Your task to perform on an android device: What's on my calendar today? Image 0: 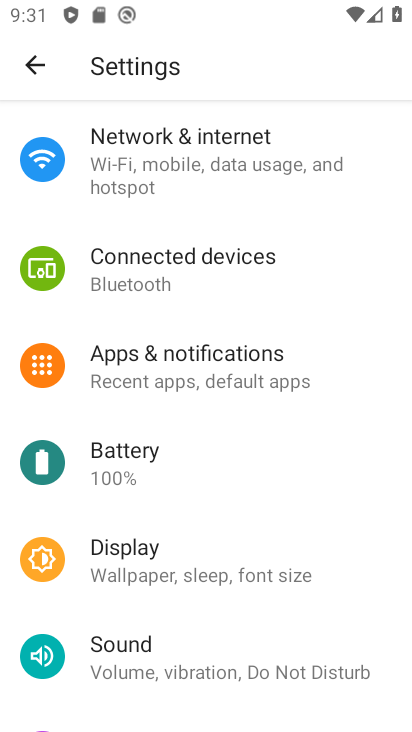
Step 0: press home button
Your task to perform on an android device: What's on my calendar today? Image 1: 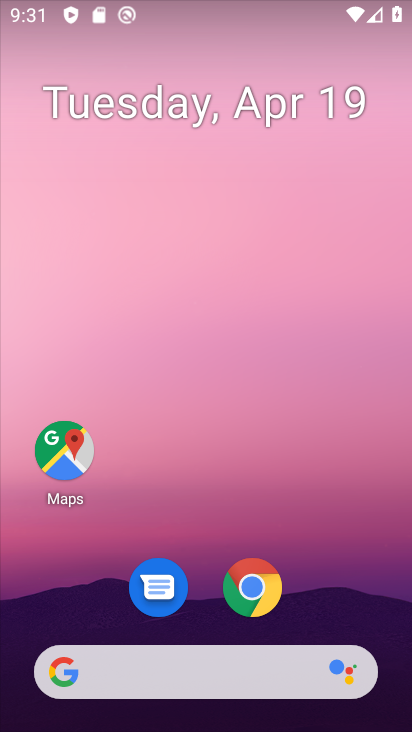
Step 1: drag from (357, 466) to (343, 83)
Your task to perform on an android device: What's on my calendar today? Image 2: 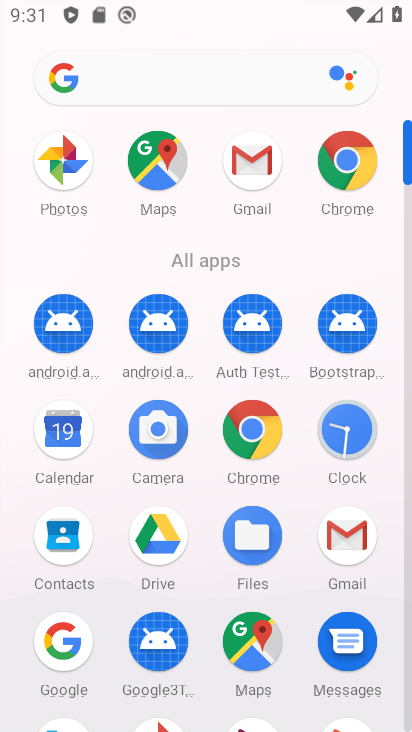
Step 2: click (46, 433)
Your task to perform on an android device: What's on my calendar today? Image 3: 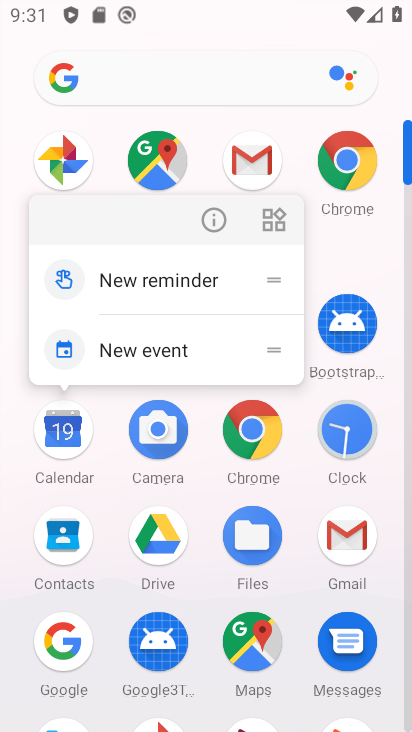
Step 3: click (67, 447)
Your task to perform on an android device: What's on my calendar today? Image 4: 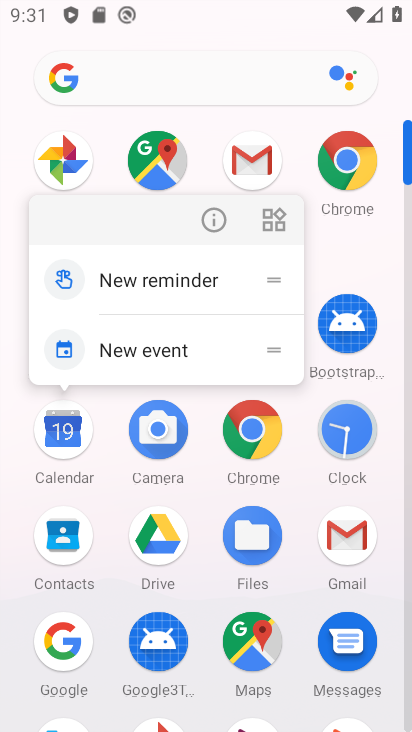
Step 4: click (71, 421)
Your task to perform on an android device: What's on my calendar today? Image 5: 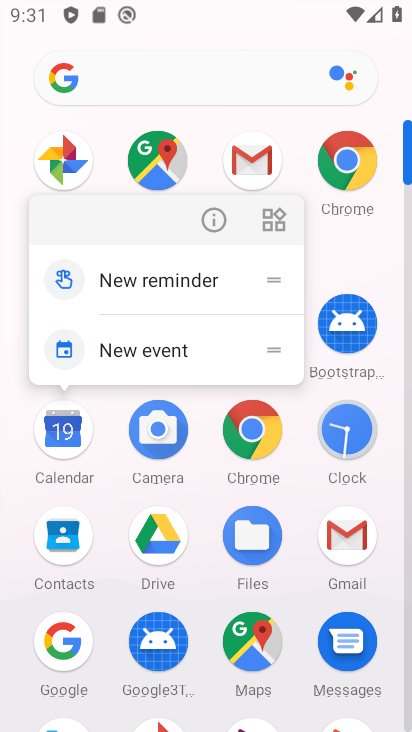
Step 5: click (71, 420)
Your task to perform on an android device: What's on my calendar today? Image 6: 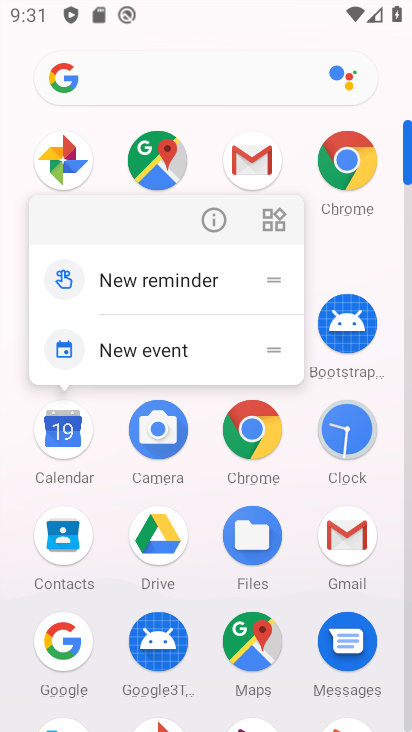
Step 6: click (71, 425)
Your task to perform on an android device: What's on my calendar today? Image 7: 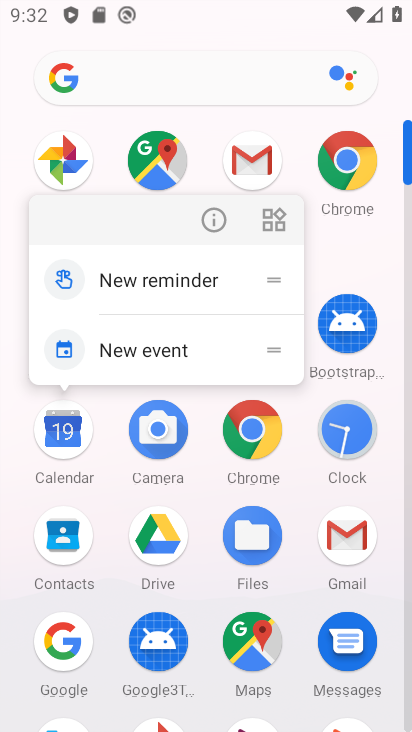
Step 7: click (71, 425)
Your task to perform on an android device: What's on my calendar today? Image 8: 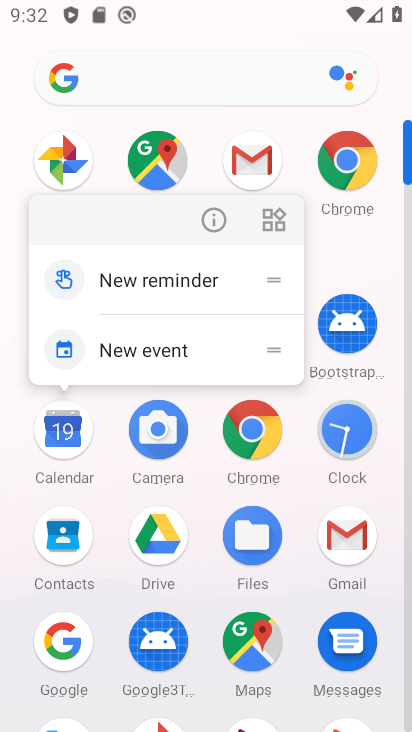
Step 8: click (59, 450)
Your task to perform on an android device: What's on my calendar today? Image 9: 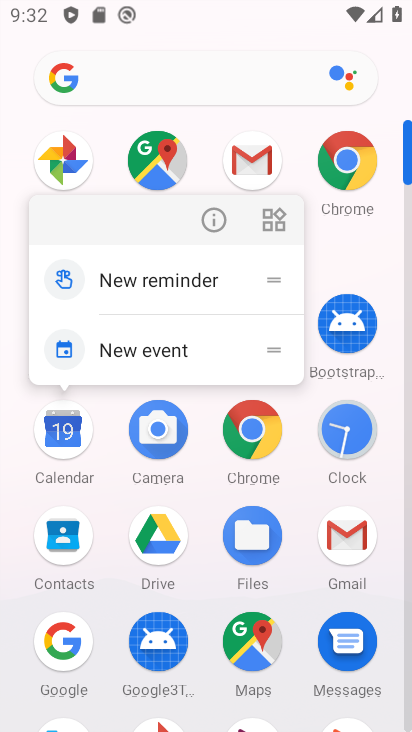
Step 9: click (69, 429)
Your task to perform on an android device: What's on my calendar today? Image 10: 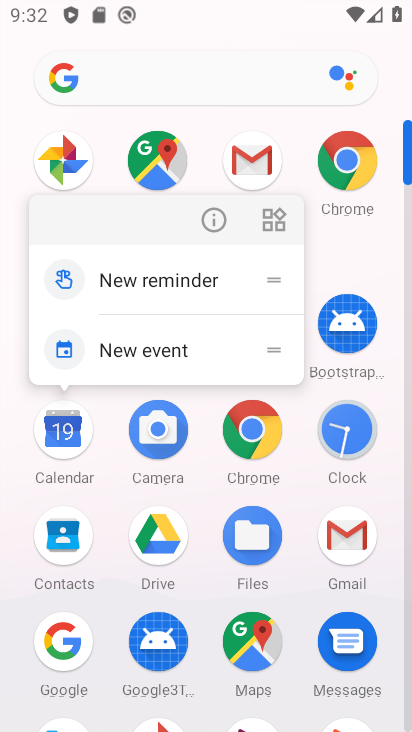
Step 10: click (69, 430)
Your task to perform on an android device: What's on my calendar today? Image 11: 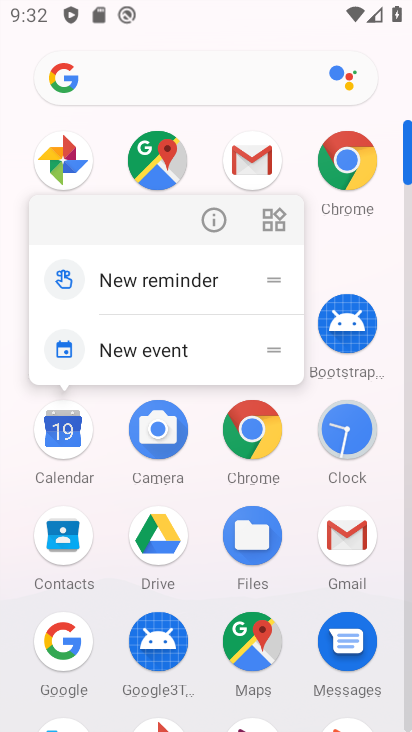
Step 11: click (69, 430)
Your task to perform on an android device: What's on my calendar today? Image 12: 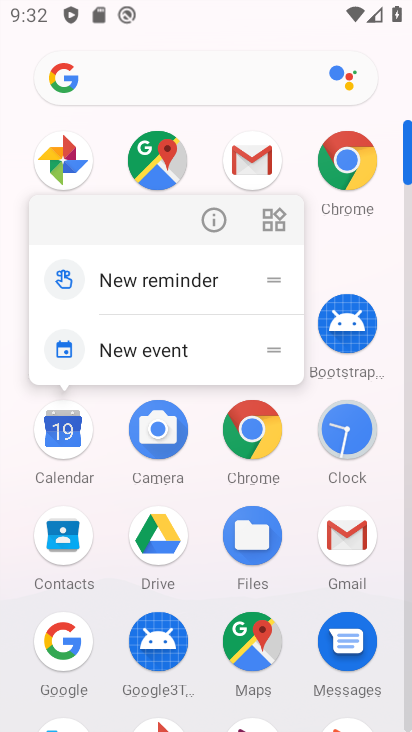
Step 12: click (69, 430)
Your task to perform on an android device: What's on my calendar today? Image 13: 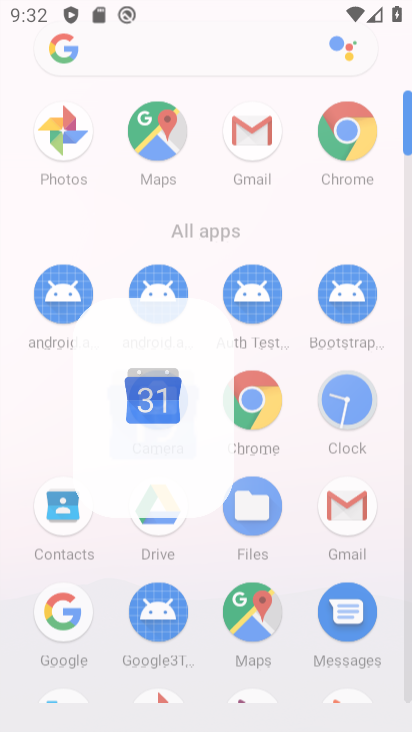
Step 13: click (69, 430)
Your task to perform on an android device: What's on my calendar today? Image 14: 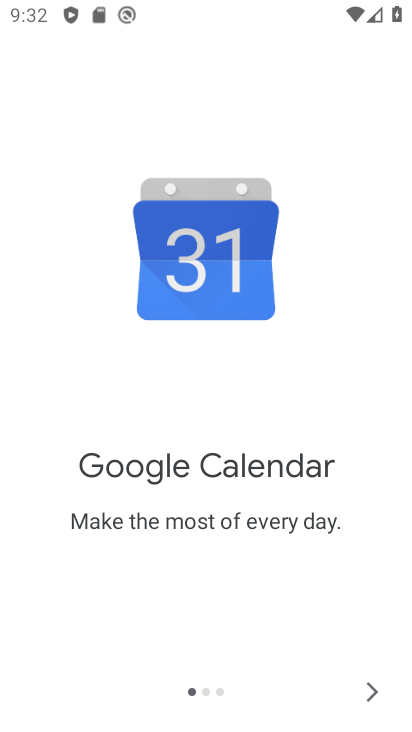
Step 14: click (382, 684)
Your task to perform on an android device: What's on my calendar today? Image 15: 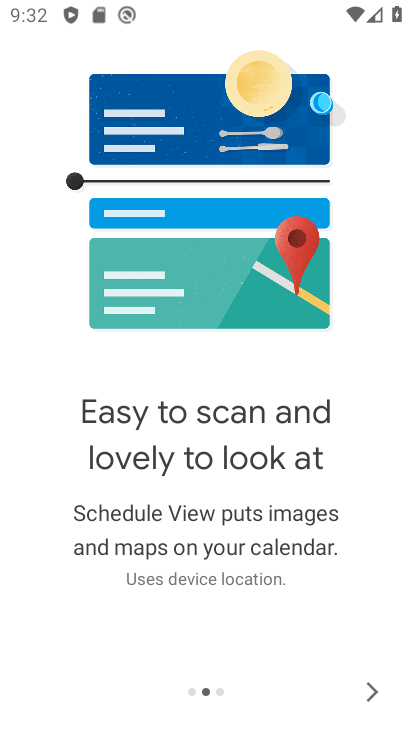
Step 15: click (367, 688)
Your task to perform on an android device: What's on my calendar today? Image 16: 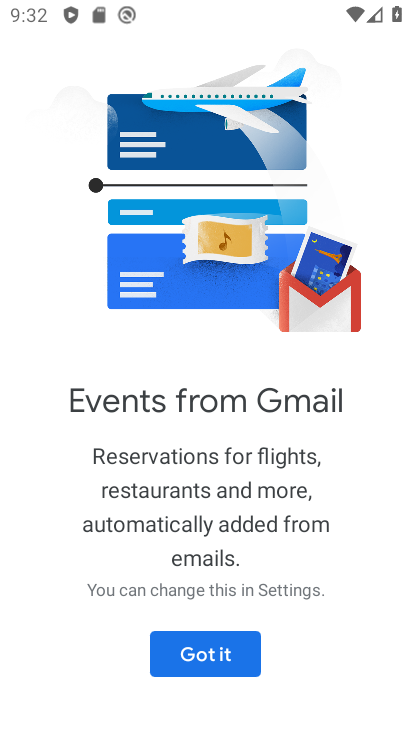
Step 16: click (182, 658)
Your task to perform on an android device: What's on my calendar today? Image 17: 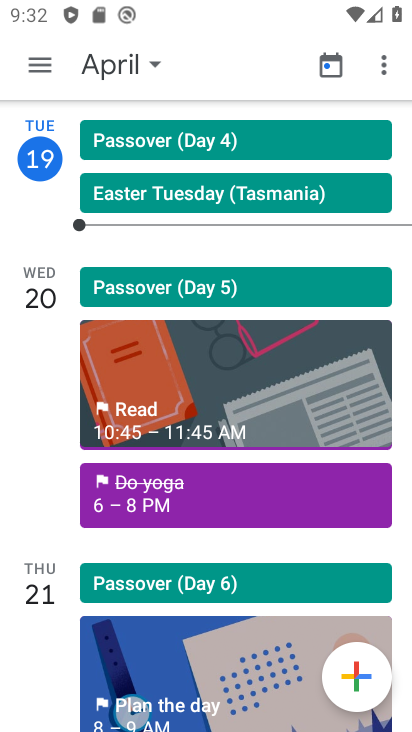
Step 17: click (127, 57)
Your task to perform on an android device: What's on my calendar today? Image 18: 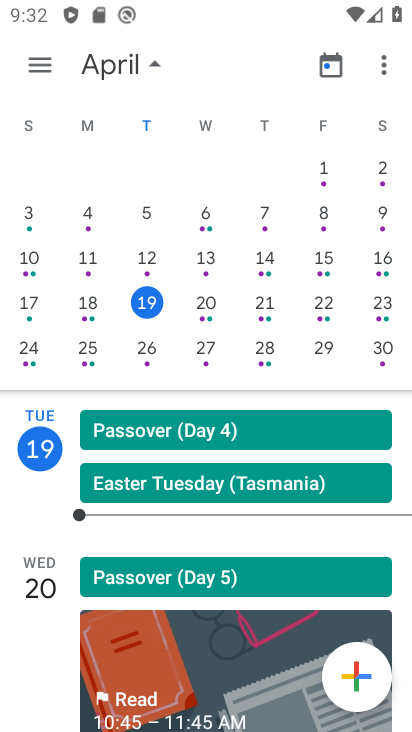
Step 18: click (144, 313)
Your task to perform on an android device: What's on my calendar today? Image 19: 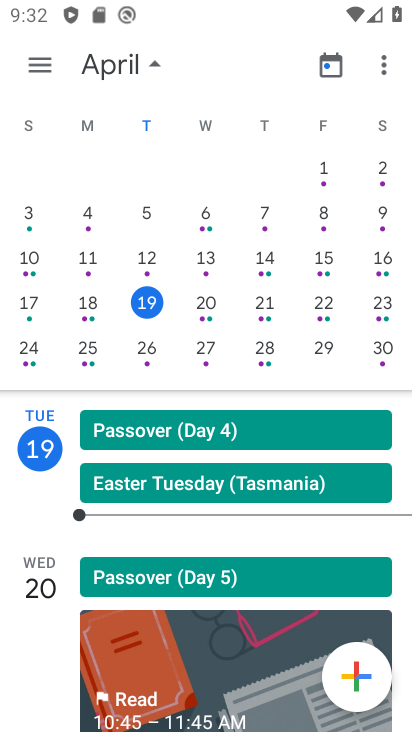
Step 19: task complete